Your task to perform on an android device: toggle airplane mode Image 0: 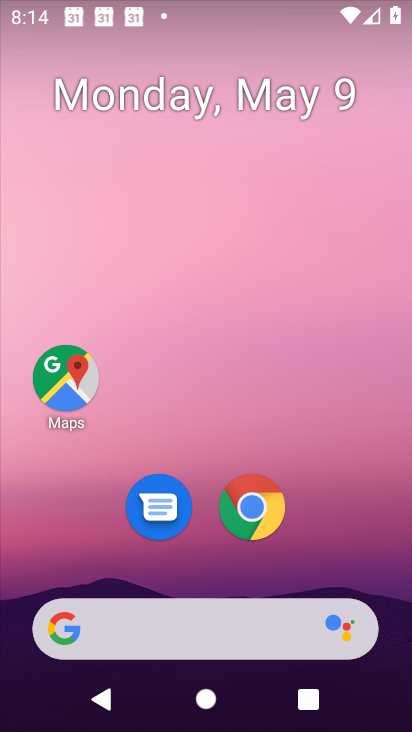
Step 0: drag from (229, 578) to (201, 3)
Your task to perform on an android device: toggle airplane mode Image 1: 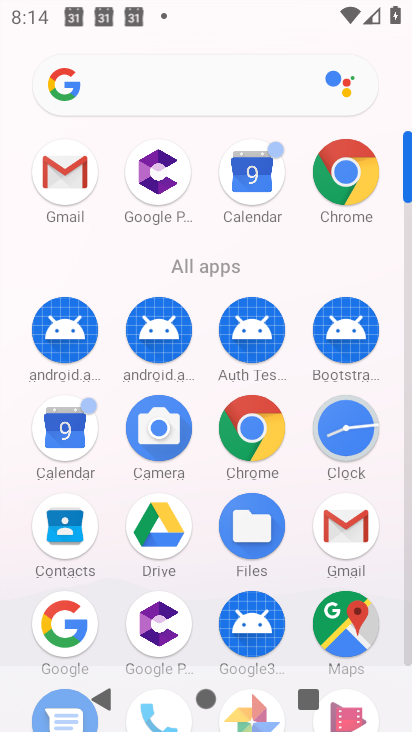
Step 1: drag from (182, 589) to (116, 15)
Your task to perform on an android device: toggle airplane mode Image 2: 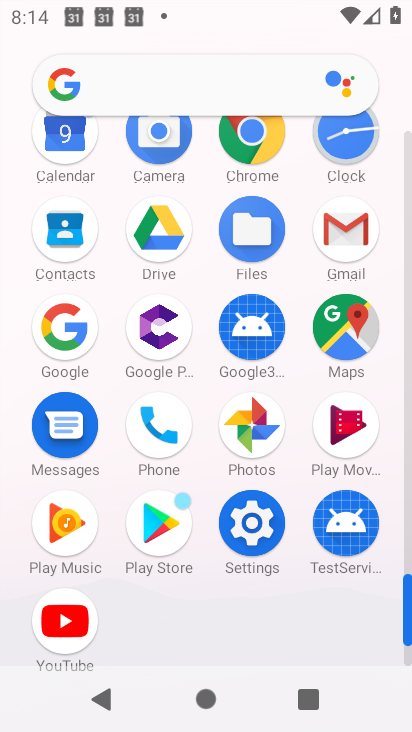
Step 2: click (246, 524)
Your task to perform on an android device: toggle airplane mode Image 3: 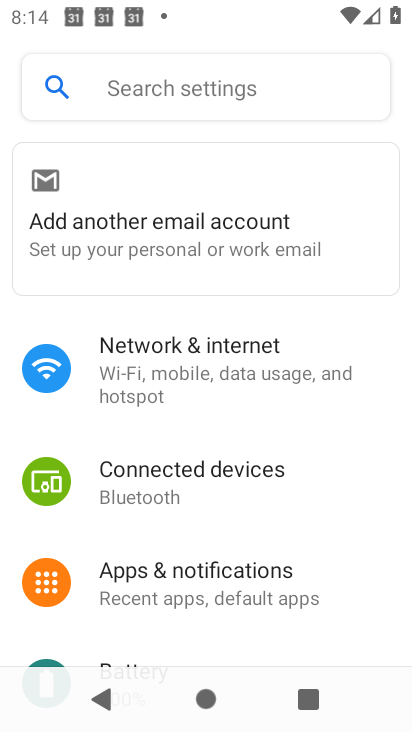
Step 3: click (215, 341)
Your task to perform on an android device: toggle airplane mode Image 4: 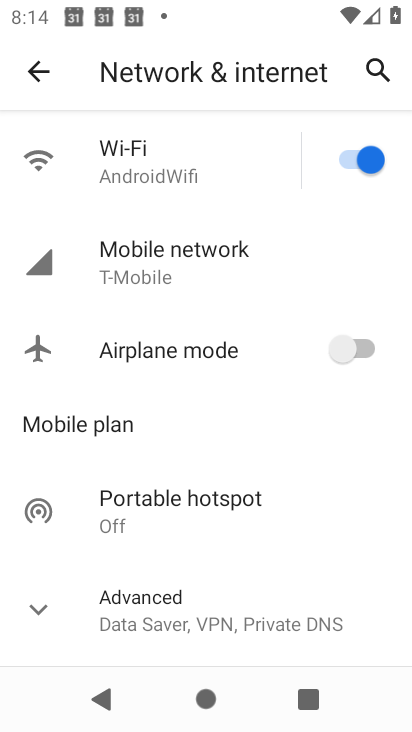
Step 4: click (215, 342)
Your task to perform on an android device: toggle airplane mode Image 5: 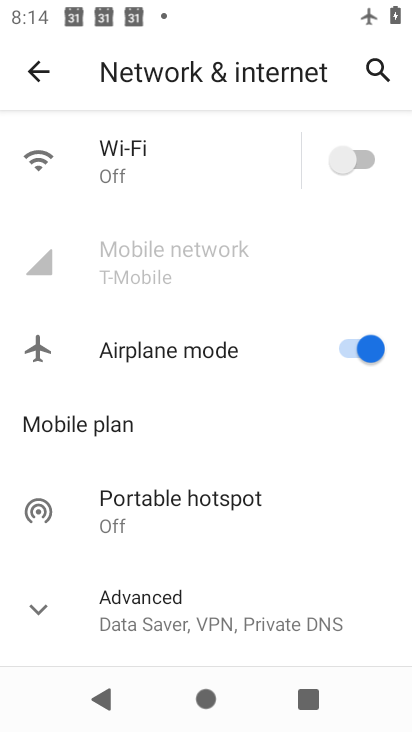
Step 5: task complete